Your task to perform on an android device: move a message to another label in the gmail app Image 0: 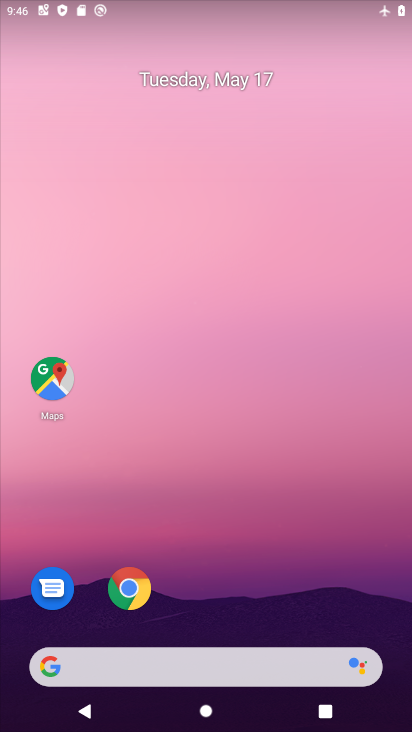
Step 0: drag from (232, 630) to (188, 0)
Your task to perform on an android device: move a message to another label in the gmail app Image 1: 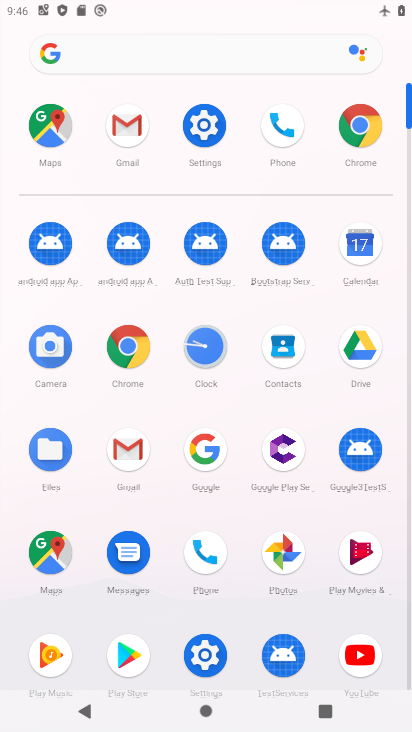
Step 1: click (140, 453)
Your task to perform on an android device: move a message to another label in the gmail app Image 2: 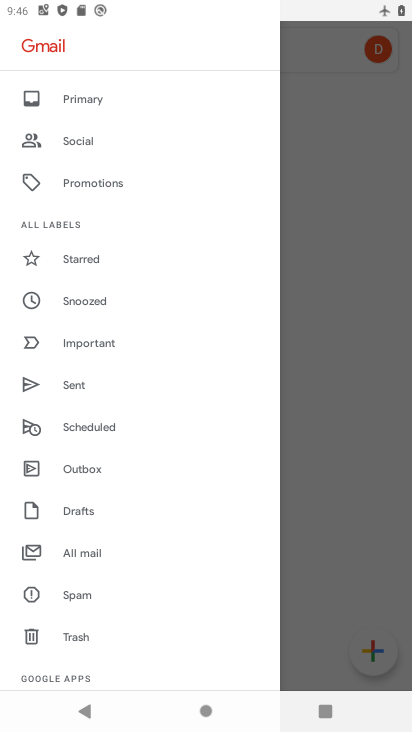
Step 2: click (79, 107)
Your task to perform on an android device: move a message to another label in the gmail app Image 3: 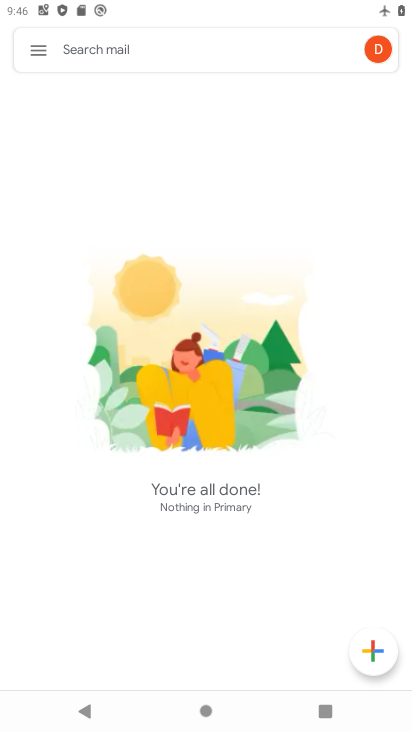
Step 3: task complete